Your task to perform on an android device: Open Amazon Image 0: 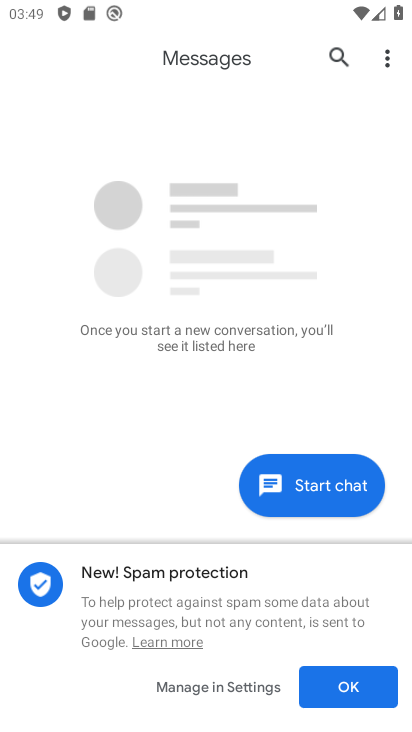
Step 0: press home button
Your task to perform on an android device: Open Amazon Image 1: 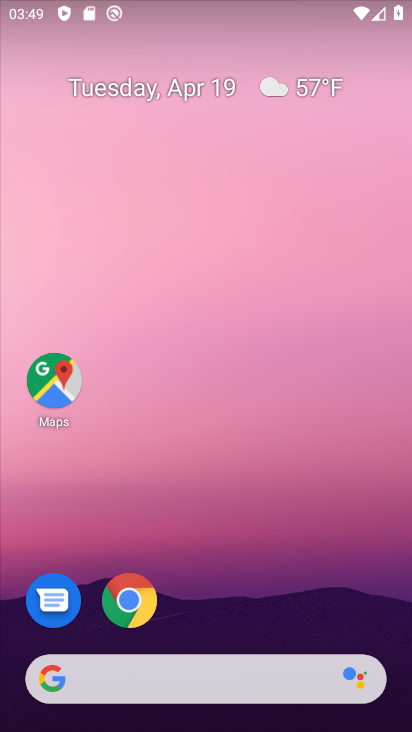
Step 1: click (140, 605)
Your task to perform on an android device: Open Amazon Image 2: 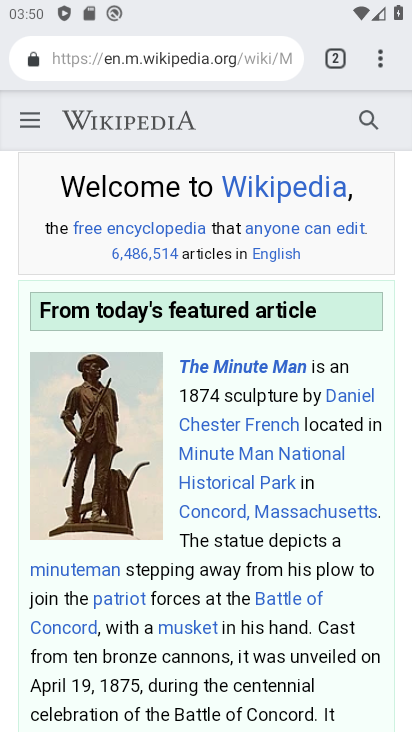
Step 2: click (331, 69)
Your task to perform on an android device: Open Amazon Image 3: 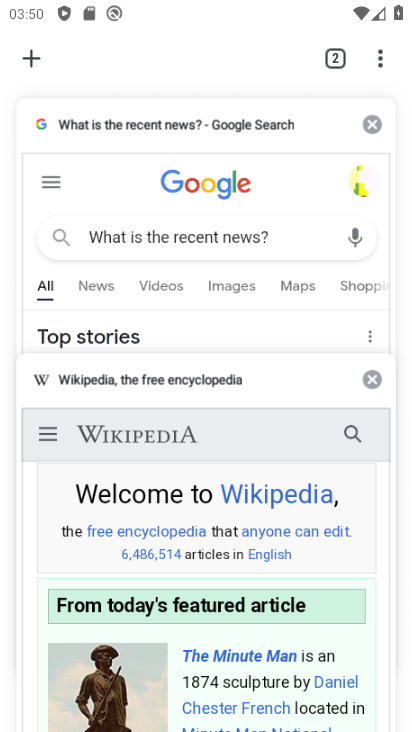
Step 3: click (36, 59)
Your task to perform on an android device: Open Amazon Image 4: 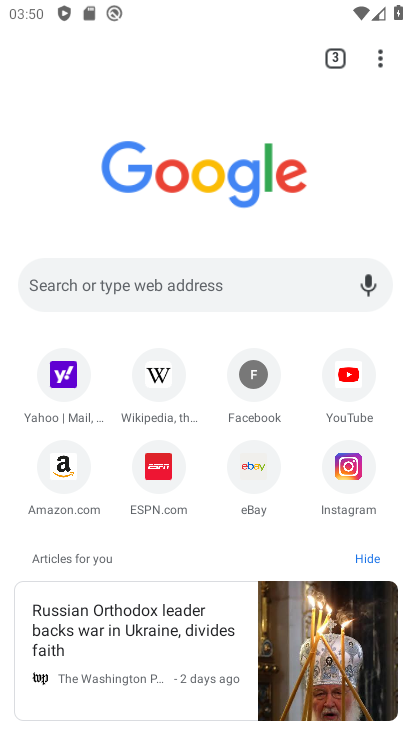
Step 4: click (78, 477)
Your task to perform on an android device: Open Amazon Image 5: 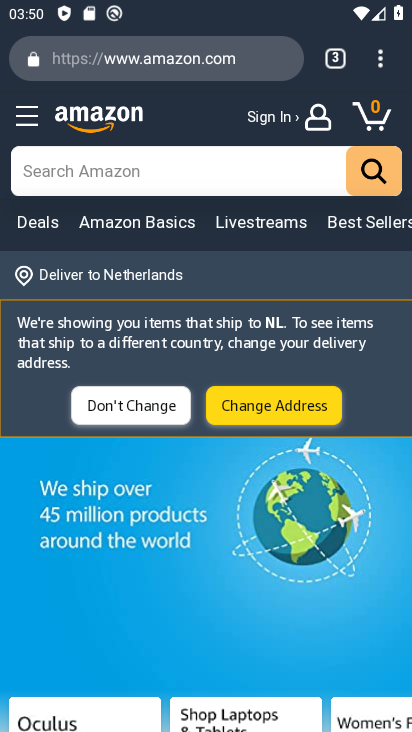
Step 5: task complete